Your task to perform on an android device: Search for alienware aurora on walmart.com, select the first entry, and add it to the cart. Image 0: 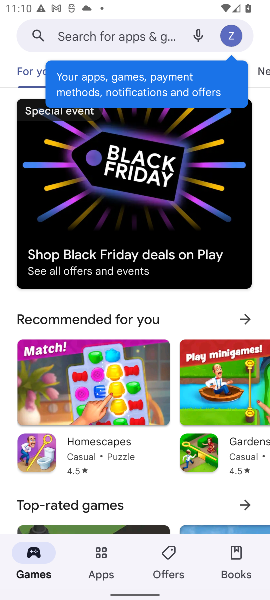
Step 0: press home button
Your task to perform on an android device: Search for alienware aurora on walmart.com, select the first entry, and add it to the cart. Image 1: 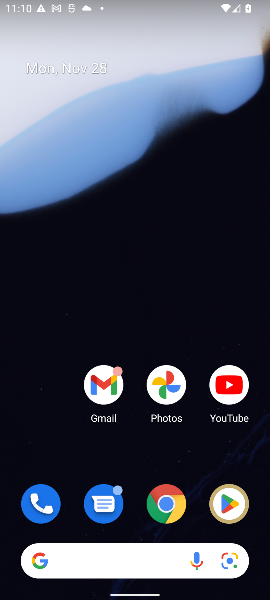
Step 1: click (164, 506)
Your task to perform on an android device: Search for alienware aurora on walmart.com, select the first entry, and add it to the cart. Image 2: 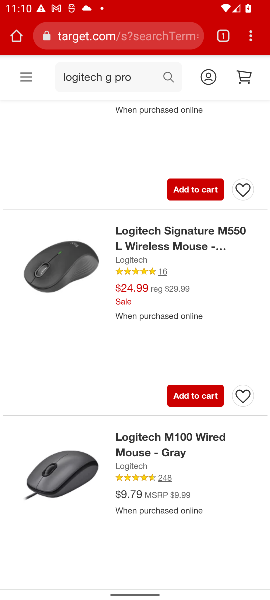
Step 2: click (88, 38)
Your task to perform on an android device: Search for alienware aurora on walmart.com, select the first entry, and add it to the cart. Image 3: 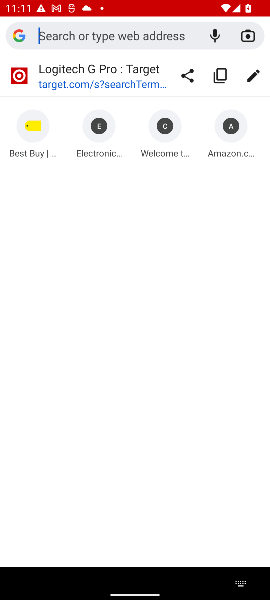
Step 3: type "walmart.com"
Your task to perform on an android device: Search for alienware aurora on walmart.com, select the first entry, and add it to the cart. Image 4: 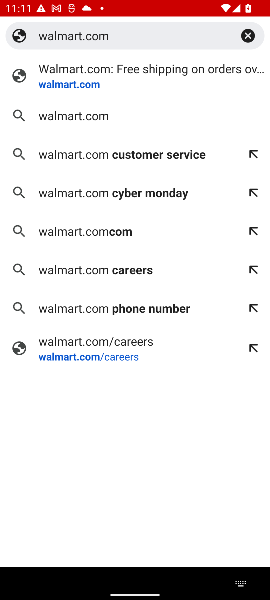
Step 4: click (52, 77)
Your task to perform on an android device: Search for alienware aurora on walmart.com, select the first entry, and add it to the cart. Image 5: 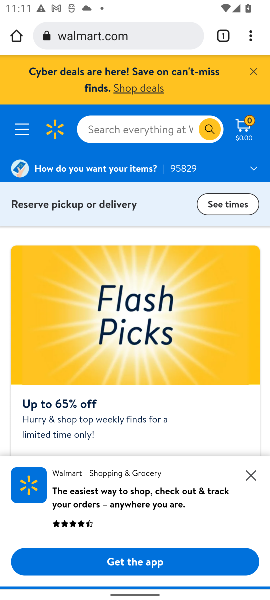
Step 5: click (111, 135)
Your task to perform on an android device: Search for alienware aurora on walmart.com, select the first entry, and add it to the cart. Image 6: 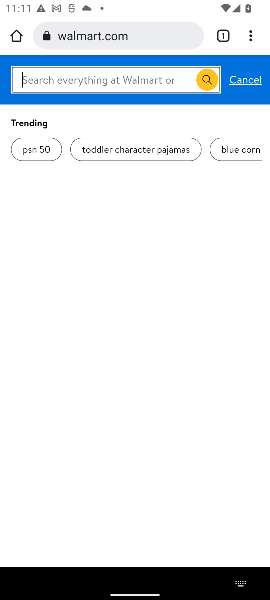
Step 6: type "alienware aurora"
Your task to perform on an android device: Search for alienware aurora on walmart.com, select the first entry, and add it to the cart. Image 7: 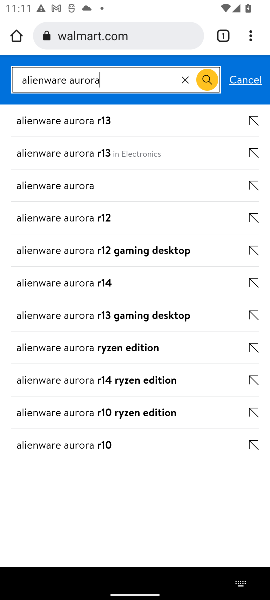
Step 7: click (41, 189)
Your task to perform on an android device: Search for alienware aurora on walmart.com, select the first entry, and add it to the cart. Image 8: 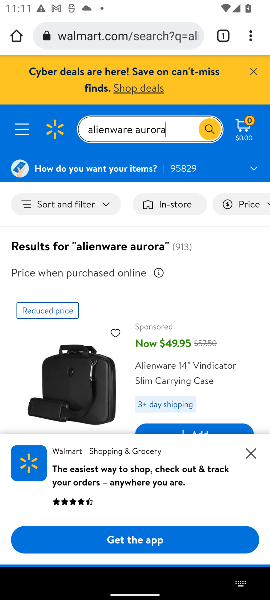
Step 8: task complete